Your task to perform on an android device: Search for Mexican restaurants on Maps Image 0: 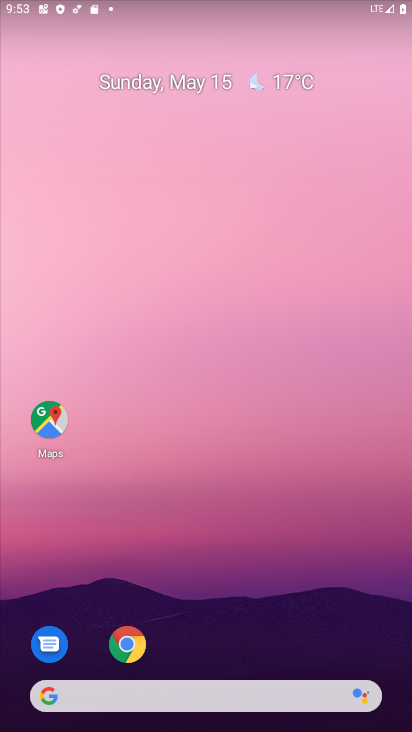
Step 0: drag from (274, 724) to (230, 161)
Your task to perform on an android device: Search for Mexican restaurants on Maps Image 1: 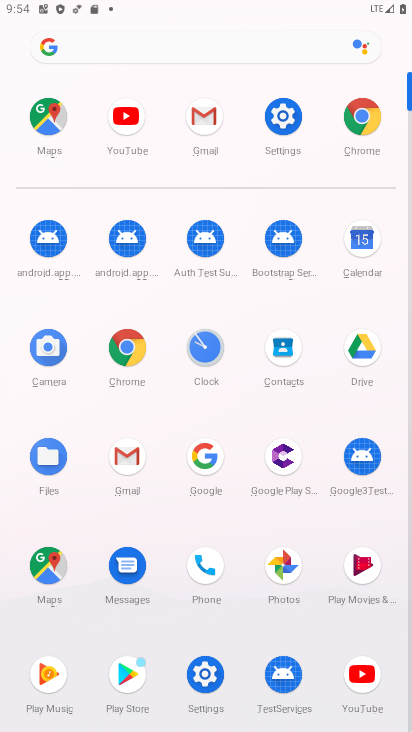
Step 1: click (38, 123)
Your task to perform on an android device: Search for Mexican restaurants on Maps Image 2: 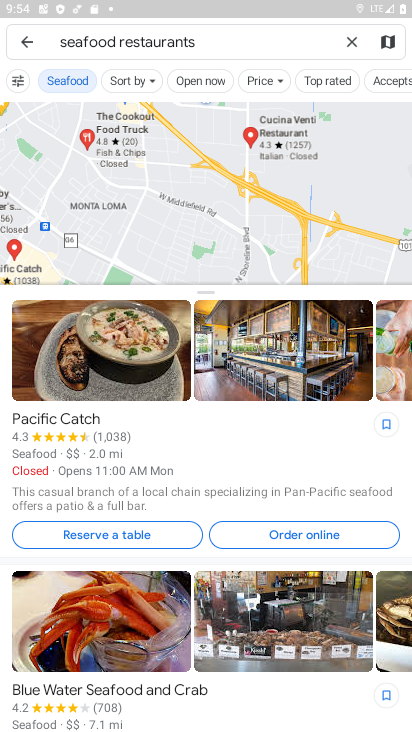
Step 2: click (346, 41)
Your task to perform on an android device: Search for Mexican restaurants on Maps Image 3: 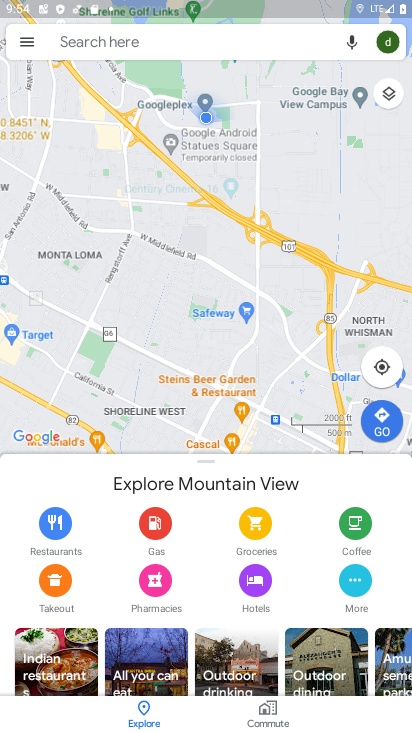
Step 3: click (261, 43)
Your task to perform on an android device: Search for Mexican restaurants on Maps Image 4: 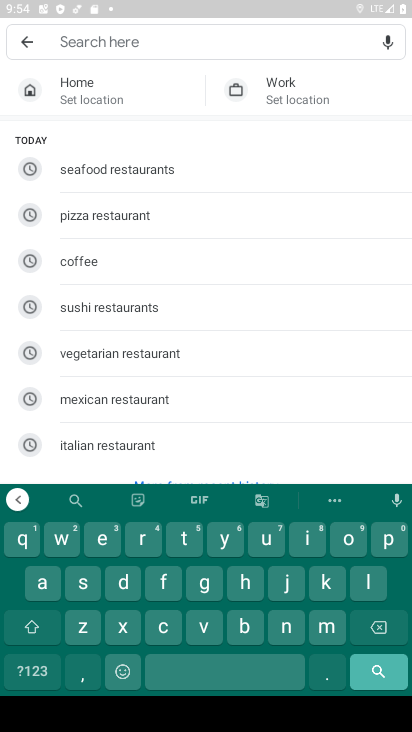
Step 4: click (106, 404)
Your task to perform on an android device: Search for Mexican restaurants on Maps Image 5: 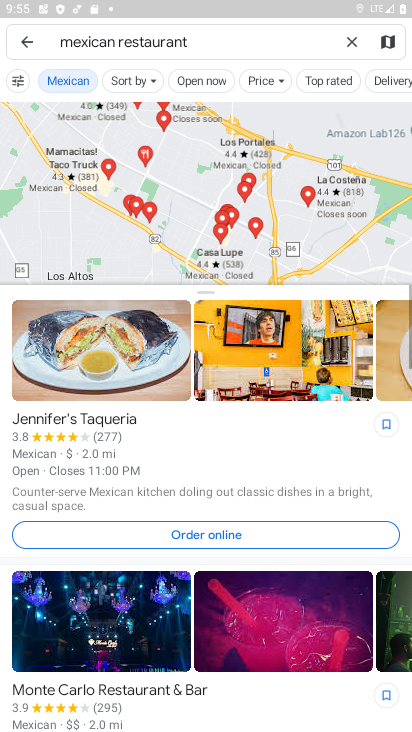
Step 5: task complete